Your task to perform on an android device: toggle javascript in the chrome app Image 0: 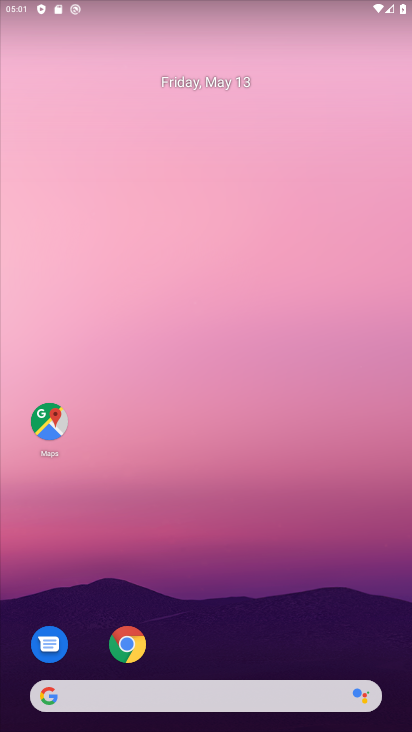
Step 0: click (118, 637)
Your task to perform on an android device: toggle javascript in the chrome app Image 1: 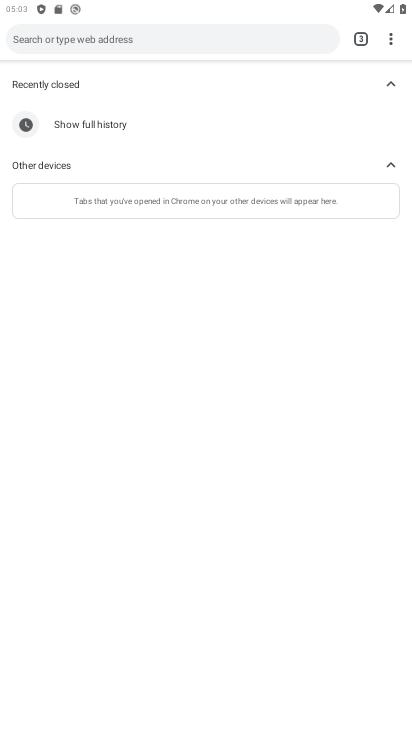
Step 1: drag from (394, 34) to (282, 330)
Your task to perform on an android device: toggle javascript in the chrome app Image 2: 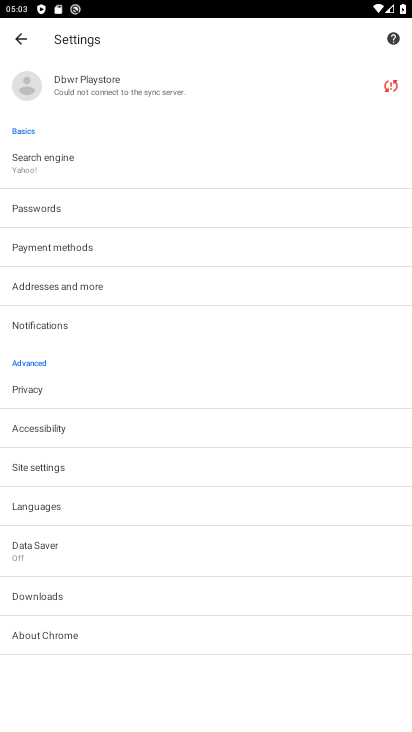
Step 2: click (44, 477)
Your task to perform on an android device: toggle javascript in the chrome app Image 3: 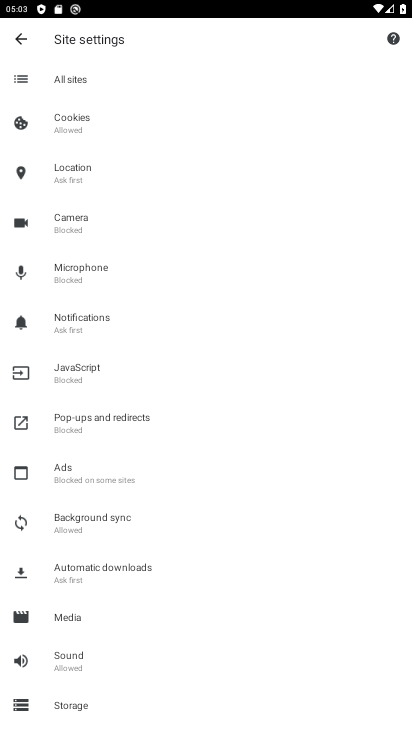
Step 3: click (121, 366)
Your task to perform on an android device: toggle javascript in the chrome app Image 4: 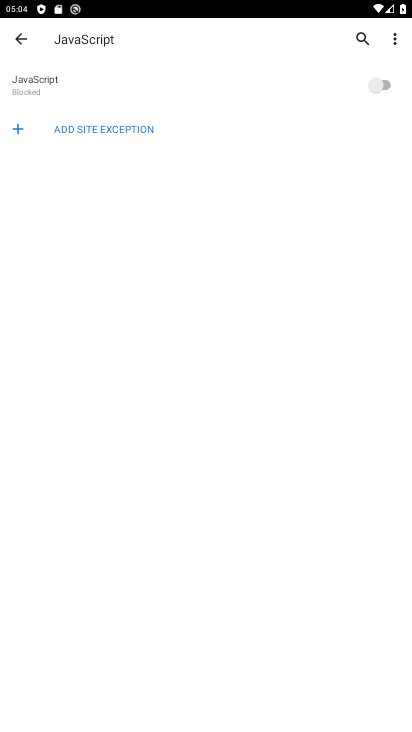
Step 4: click (376, 88)
Your task to perform on an android device: toggle javascript in the chrome app Image 5: 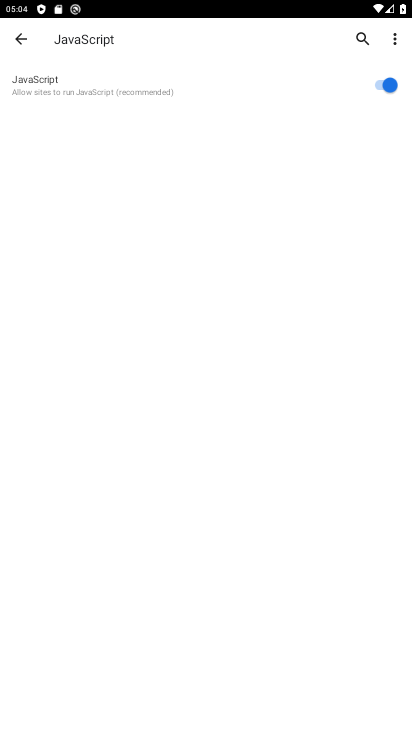
Step 5: task complete